Your task to perform on an android device: open a new tab in the chrome app Image 0: 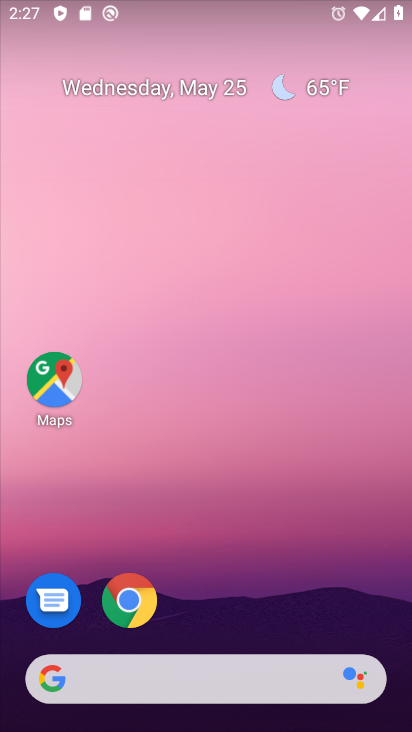
Step 0: drag from (321, 508) to (268, 58)
Your task to perform on an android device: open a new tab in the chrome app Image 1: 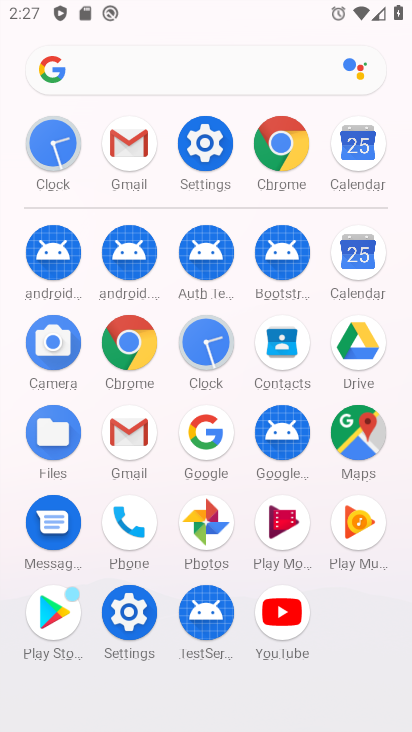
Step 1: click (117, 346)
Your task to perform on an android device: open a new tab in the chrome app Image 2: 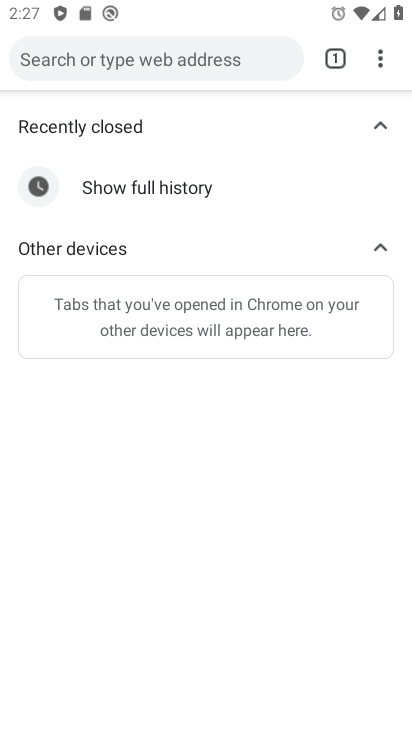
Step 2: task complete